Your task to perform on an android device: Open Amazon Image 0: 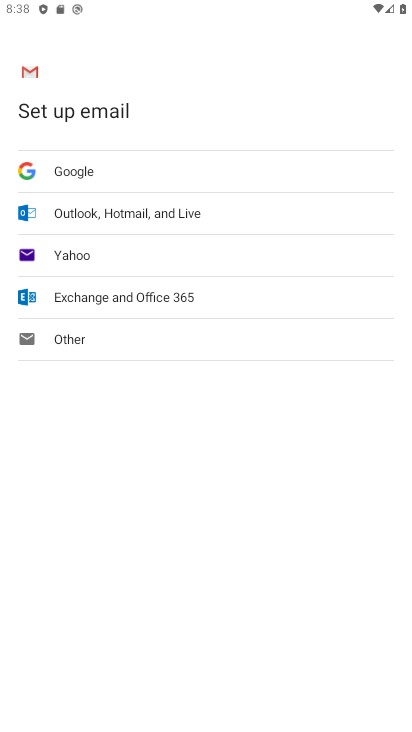
Step 0: press back button
Your task to perform on an android device: Open Amazon Image 1: 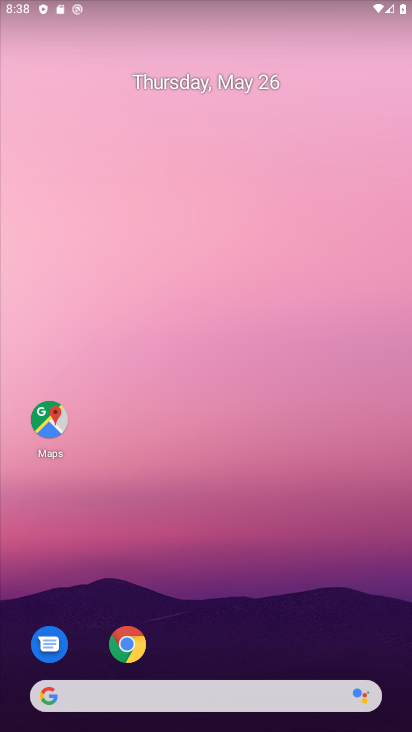
Step 1: click (135, 644)
Your task to perform on an android device: Open Amazon Image 2: 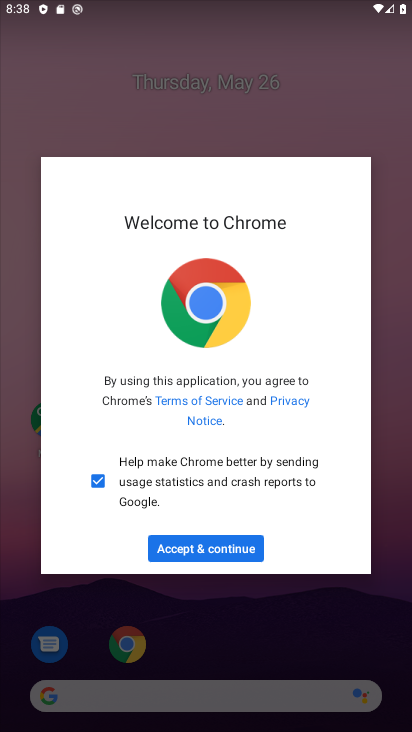
Step 2: click (228, 539)
Your task to perform on an android device: Open Amazon Image 3: 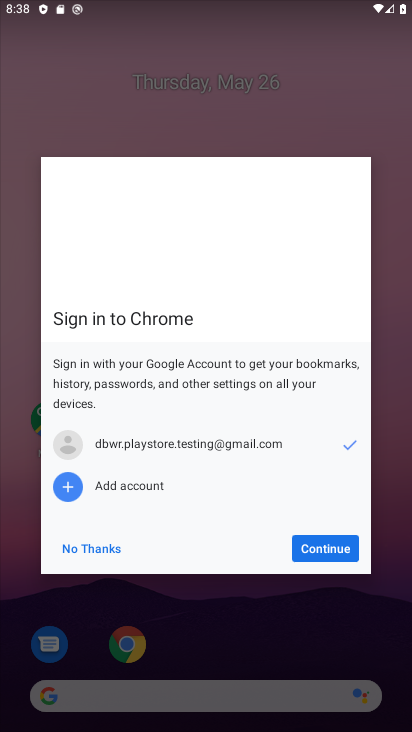
Step 3: click (323, 537)
Your task to perform on an android device: Open Amazon Image 4: 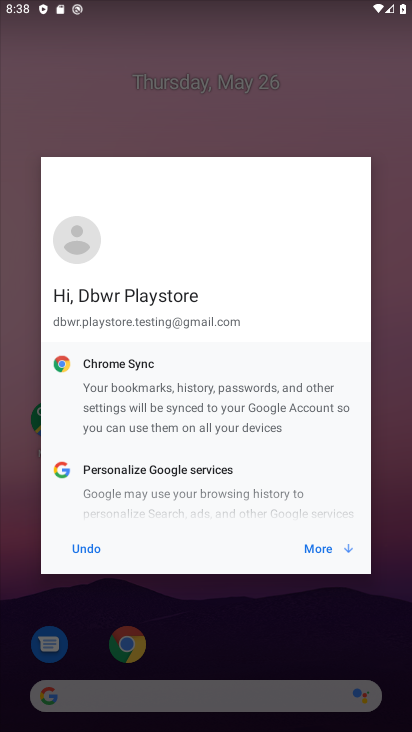
Step 4: click (325, 551)
Your task to perform on an android device: Open Amazon Image 5: 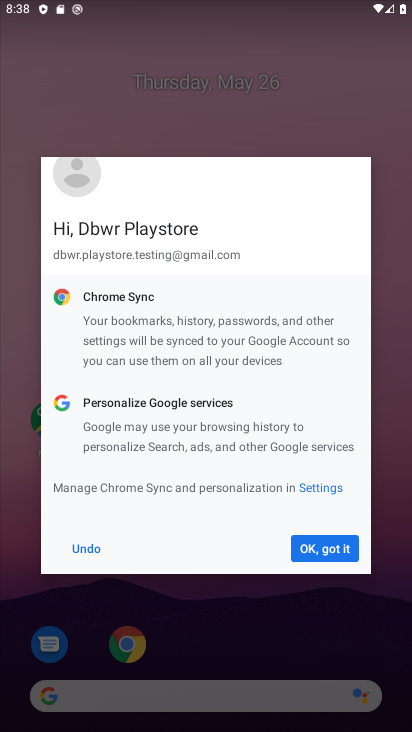
Step 5: click (326, 552)
Your task to perform on an android device: Open Amazon Image 6: 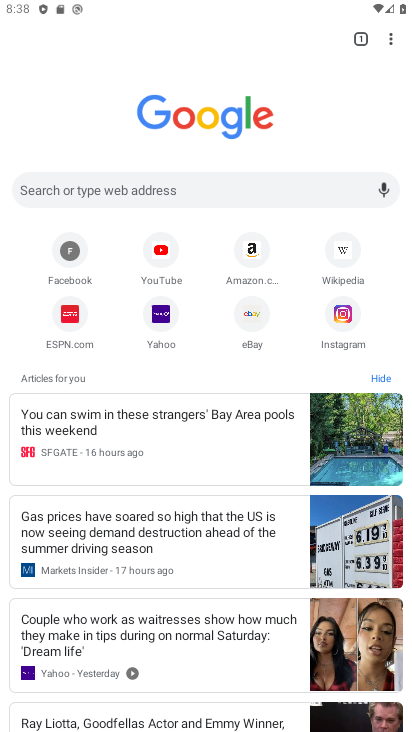
Step 6: click (248, 250)
Your task to perform on an android device: Open Amazon Image 7: 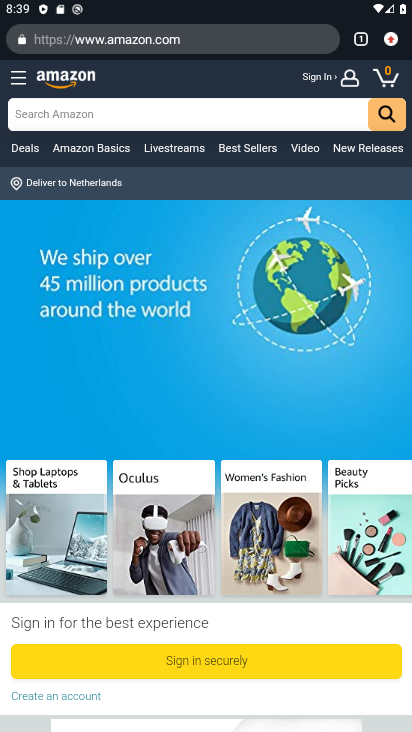
Step 7: task complete